Your task to perform on an android device: open a bookmark in the chrome app Image 0: 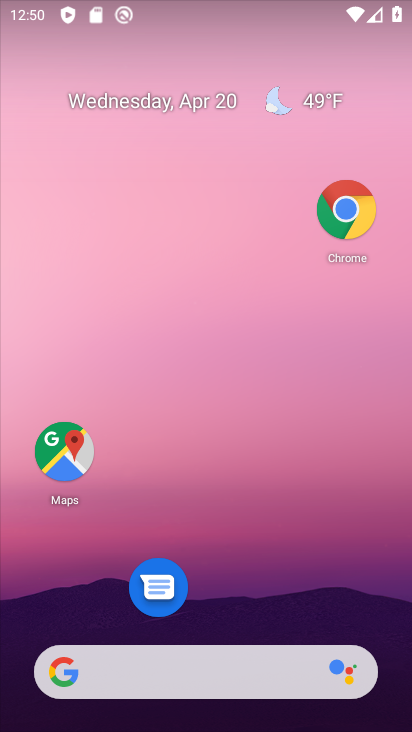
Step 0: click (355, 213)
Your task to perform on an android device: open a bookmark in the chrome app Image 1: 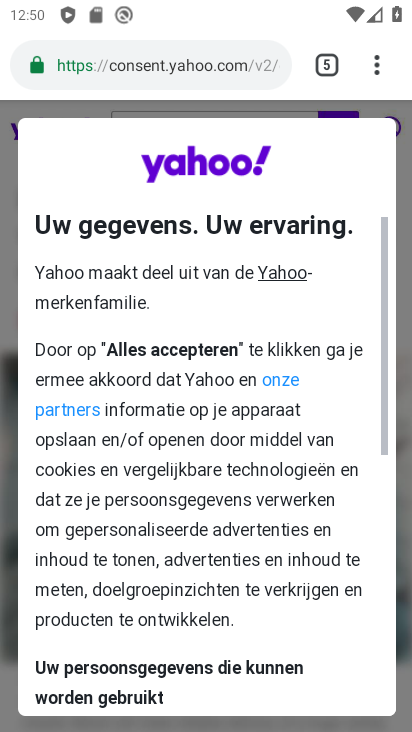
Step 1: click (379, 70)
Your task to perform on an android device: open a bookmark in the chrome app Image 2: 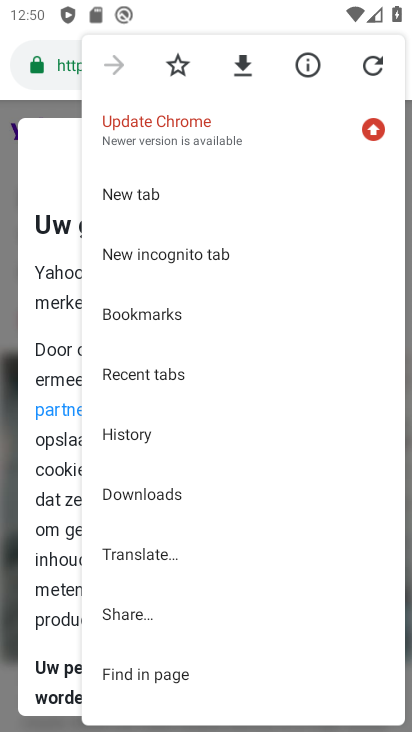
Step 2: click (171, 315)
Your task to perform on an android device: open a bookmark in the chrome app Image 3: 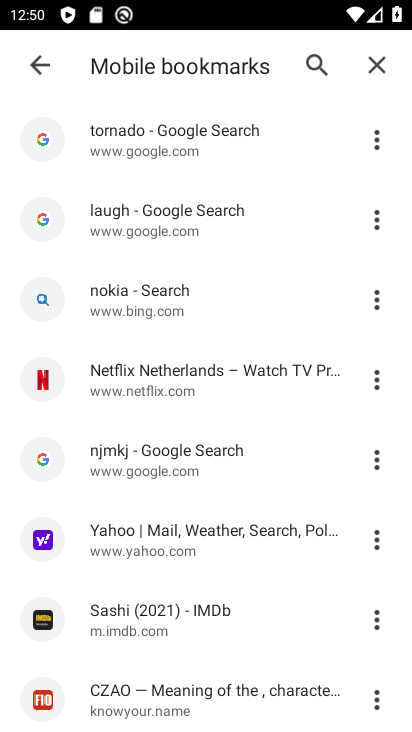
Step 3: click (169, 222)
Your task to perform on an android device: open a bookmark in the chrome app Image 4: 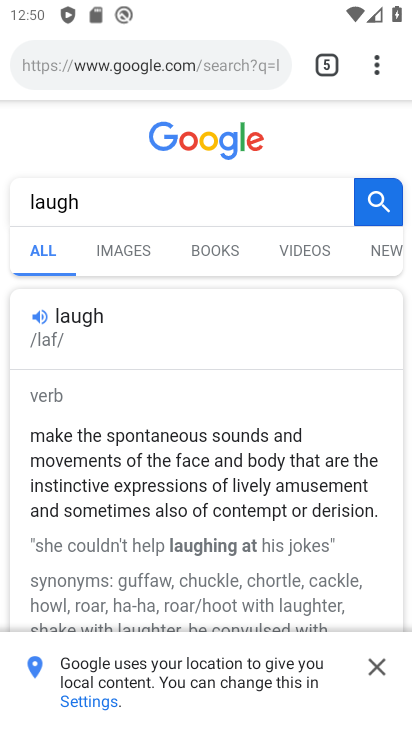
Step 4: task complete